Your task to perform on an android device: turn on improve location accuracy Image 0: 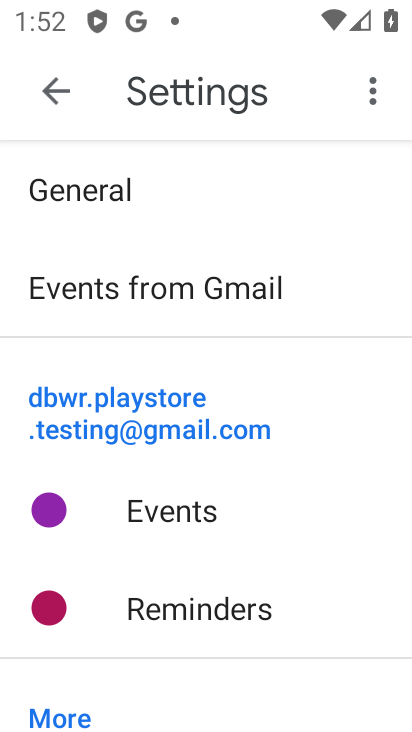
Step 0: press home button
Your task to perform on an android device: turn on improve location accuracy Image 1: 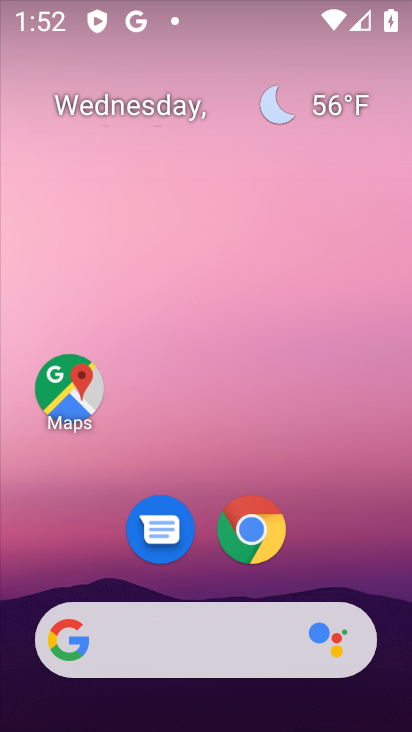
Step 1: drag from (337, 553) to (259, 184)
Your task to perform on an android device: turn on improve location accuracy Image 2: 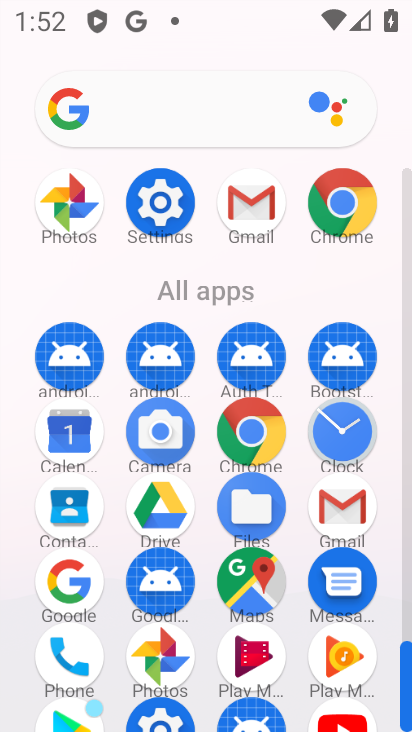
Step 2: click (164, 232)
Your task to perform on an android device: turn on improve location accuracy Image 3: 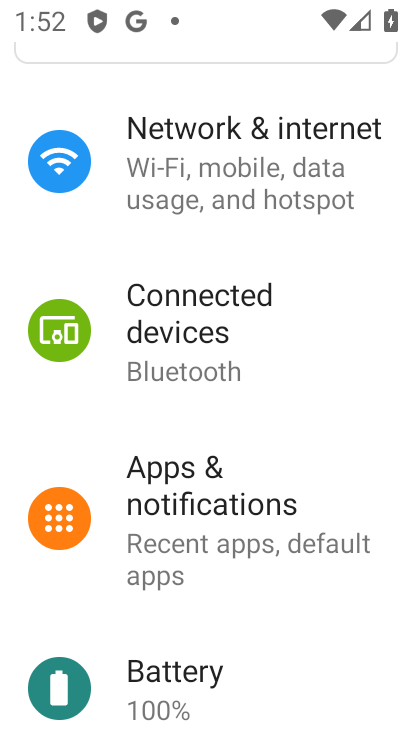
Step 3: drag from (261, 609) to (258, 197)
Your task to perform on an android device: turn on improve location accuracy Image 4: 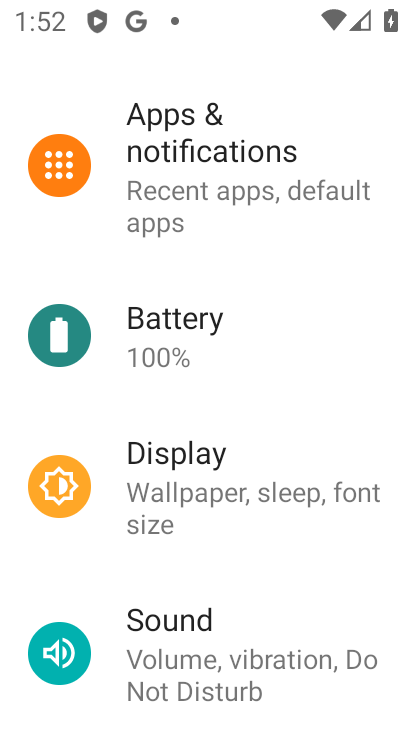
Step 4: drag from (237, 572) to (209, 300)
Your task to perform on an android device: turn on improve location accuracy Image 5: 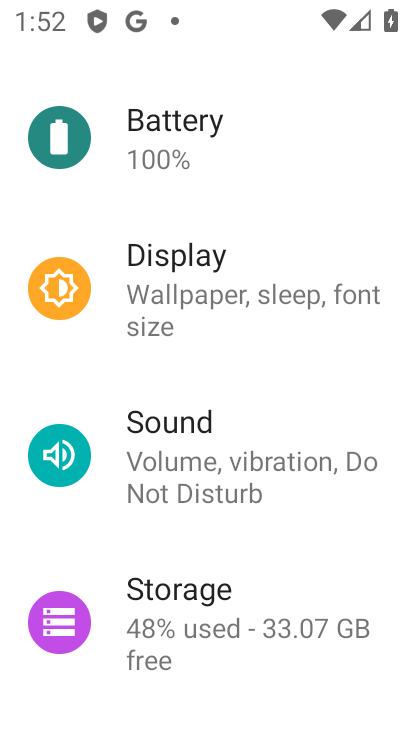
Step 5: drag from (255, 710) to (228, 317)
Your task to perform on an android device: turn on improve location accuracy Image 6: 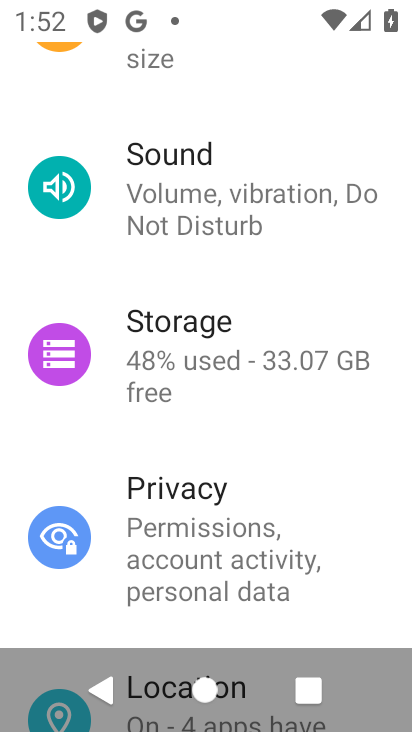
Step 6: drag from (240, 574) to (215, 387)
Your task to perform on an android device: turn on improve location accuracy Image 7: 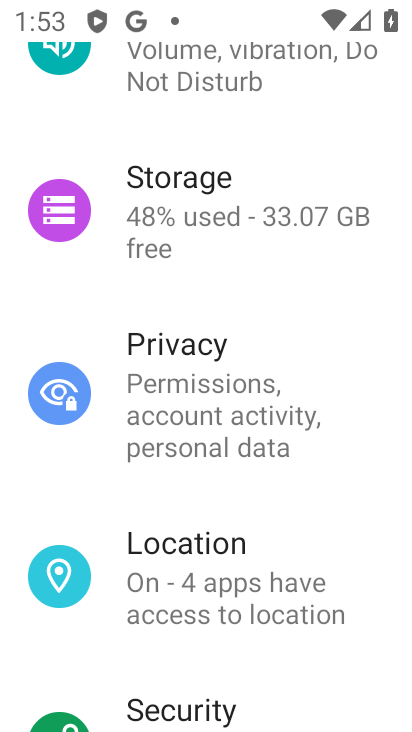
Step 7: click (216, 564)
Your task to perform on an android device: turn on improve location accuracy Image 8: 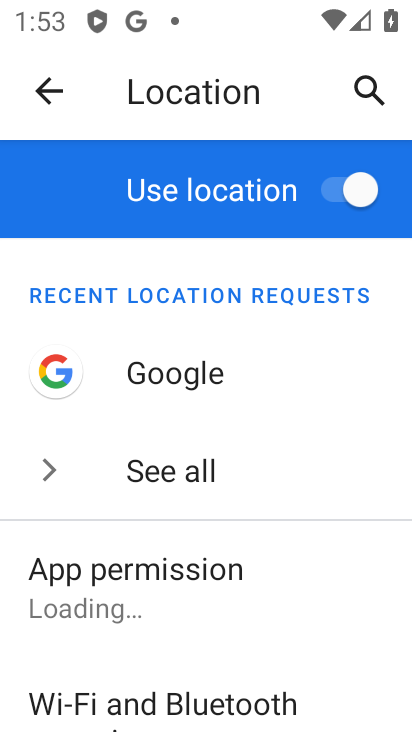
Step 8: drag from (275, 623) to (253, 395)
Your task to perform on an android device: turn on improve location accuracy Image 9: 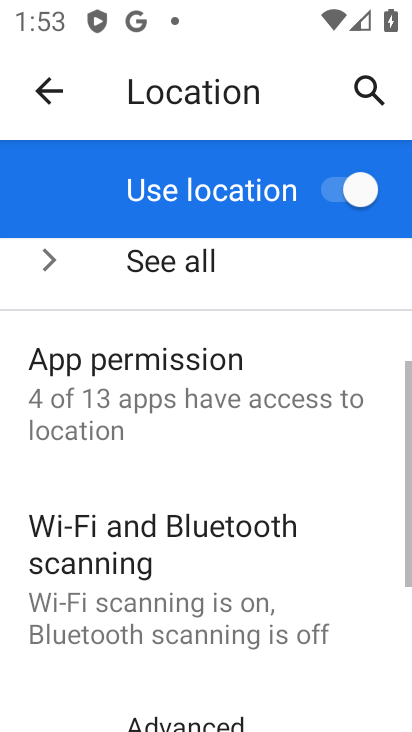
Step 9: click (177, 713)
Your task to perform on an android device: turn on improve location accuracy Image 10: 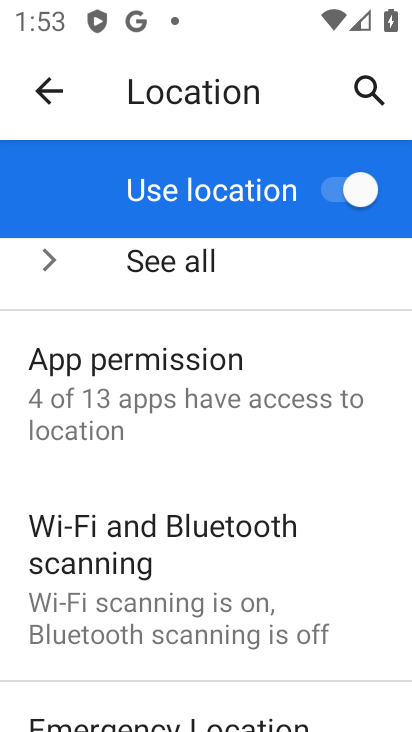
Step 10: drag from (189, 706) to (275, 336)
Your task to perform on an android device: turn on improve location accuracy Image 11: 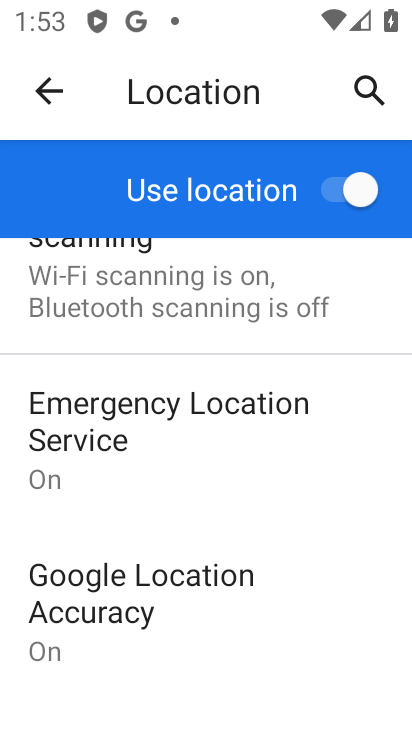
Step 11: click (164, 593)
Your task to perform on an android device: turn on improve location accuracy Image 12: 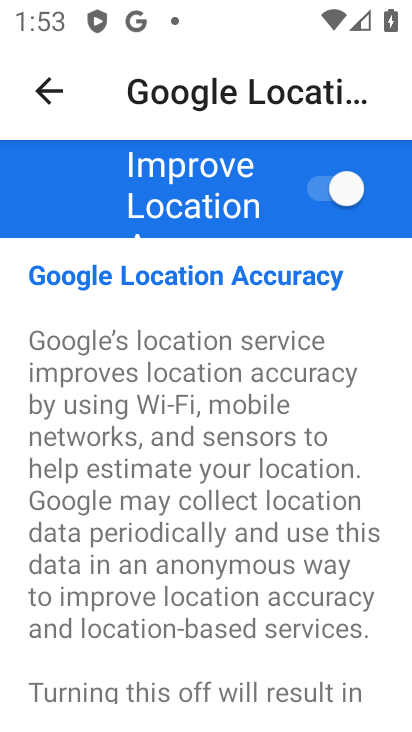
Step 12: task complete